Your task to perform on an android device: search for starred emails in the gmail app Image 0: 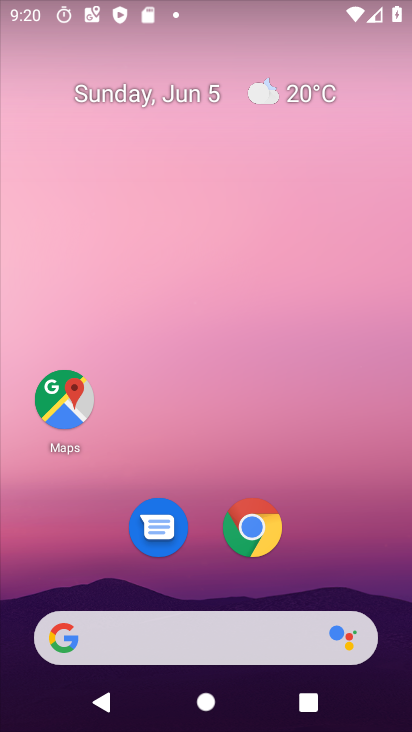
Step 0: drag from (323, 302) to (156, 2)
Your task to perform on an android device: search for starred emails in the gmail app Image 1: 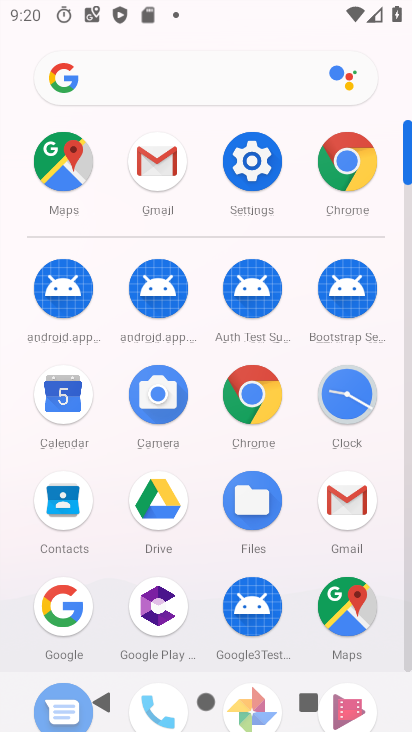
Step 1: click (363, 494)
Your task to perform on an android device: search for starred emails in the gmail app Image 2: 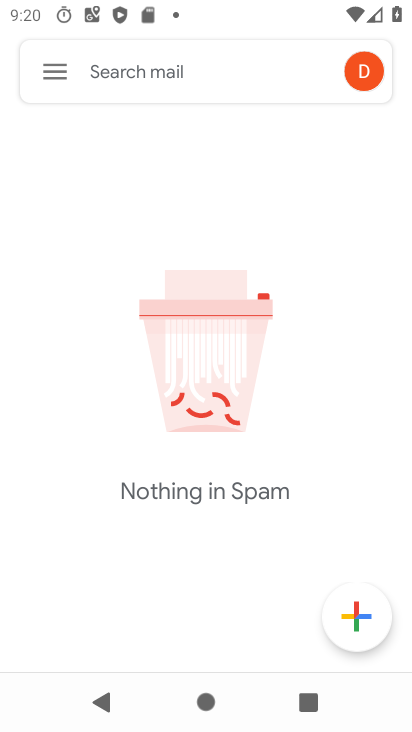
Step 2: click (57, 75)
Your task to perform on an android device: search for starred emails in the gmail app Image 3: 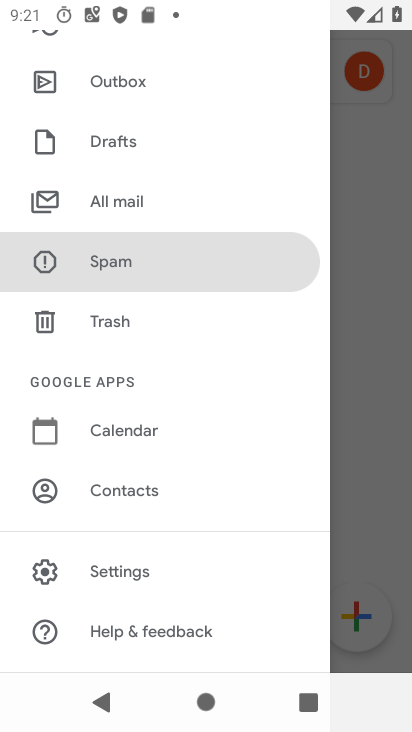
Step 3: drag from (122, 190) to (189, 559)
Your task to perform on an android device: search for starred emails in the gmail app Image 4: 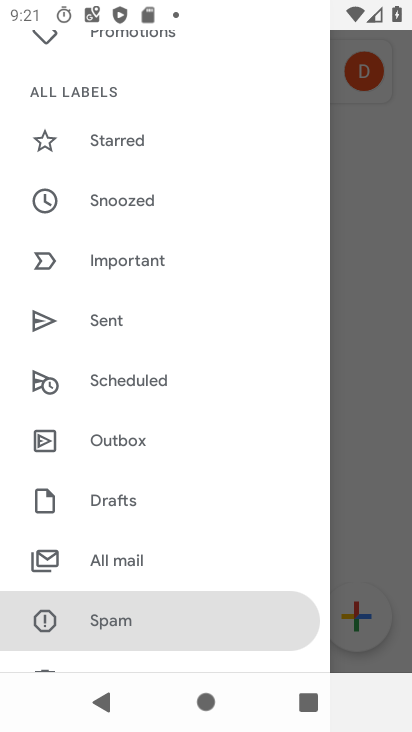
Step 4: click (106, 148)
Your task to perform on an android device: search for starred emails in the gmail app Image 5: 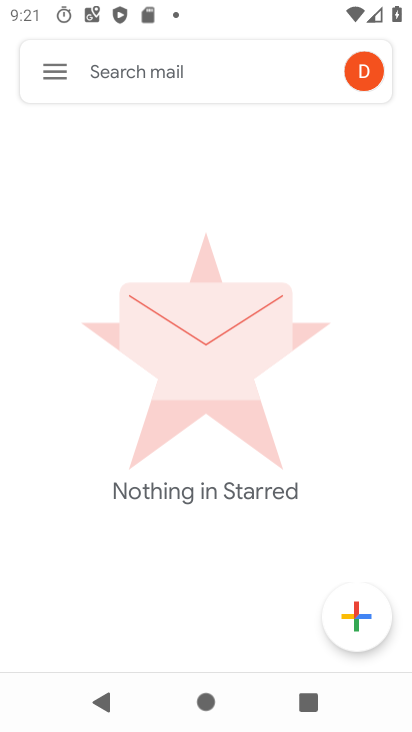
Step 5: task complete